Your task to perform on an android device: When is my next appointment? Image 0: 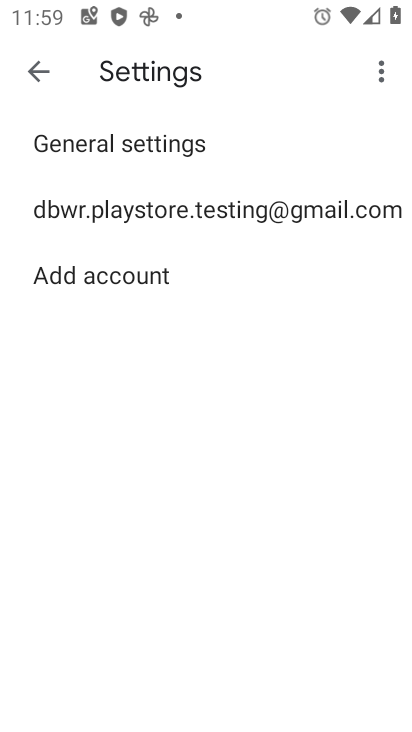
Step 0: press home button
Your task to perform on an android device: When is my next appointment? Image 1: 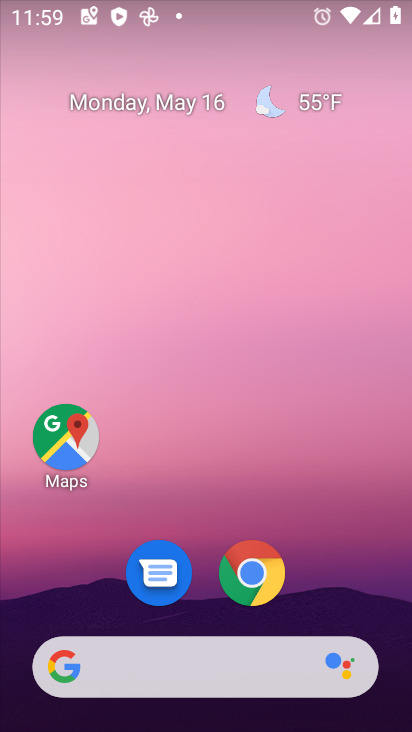
Step 1: drag from (323, 570) to (261, 107)
Your task to perform on an android device: When is my next appointment? Image 2: 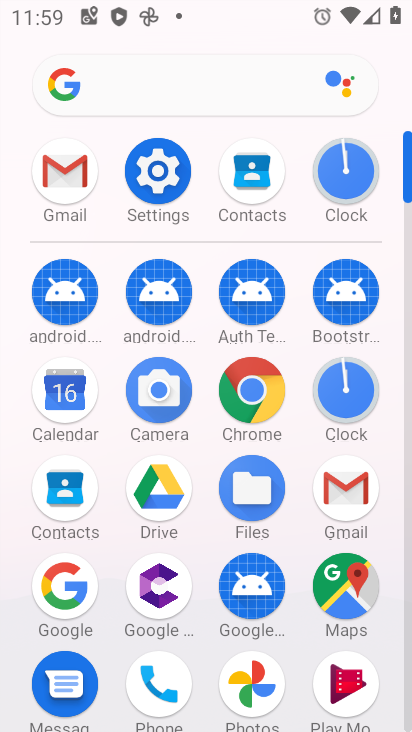
Step 2: click (59, 394)
Your task to perform on an android device: When is my next appointment? Image 3: 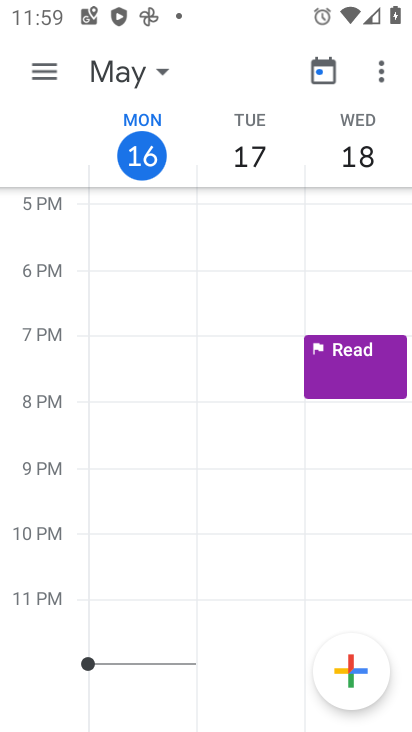
Step 3: click (57, 84)
Your task to perform on an android device: When is my next appointment? Image 4: 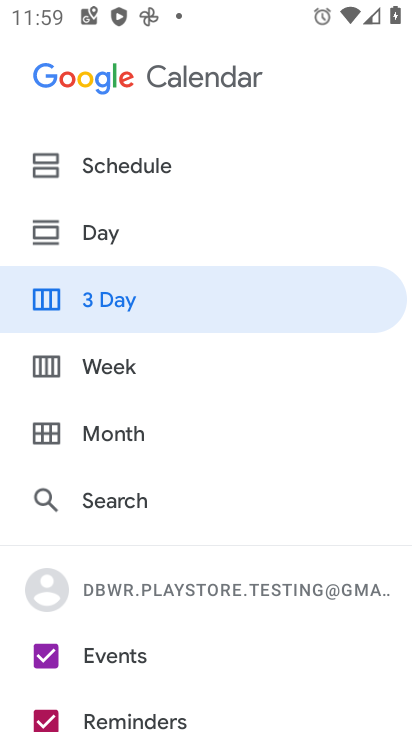
Step 4: click (100, 162)
Your task to perform on an android device: When is my next appointment? Image 5: 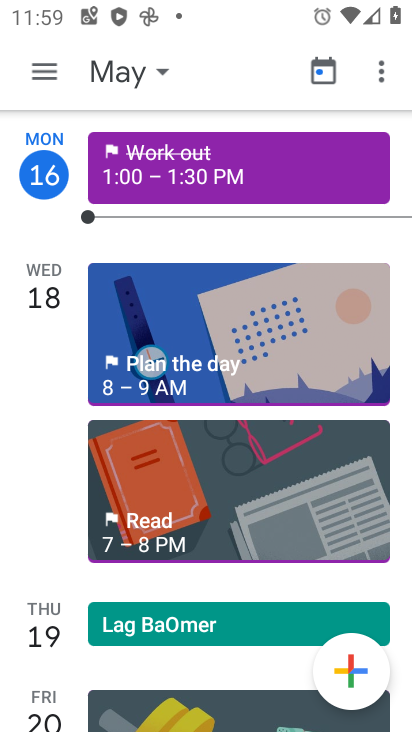
Step 5: task complete